Your task to perform on an android device: Add "macbook pro 15 inch" to the cart on bestbuy.com Image 0: 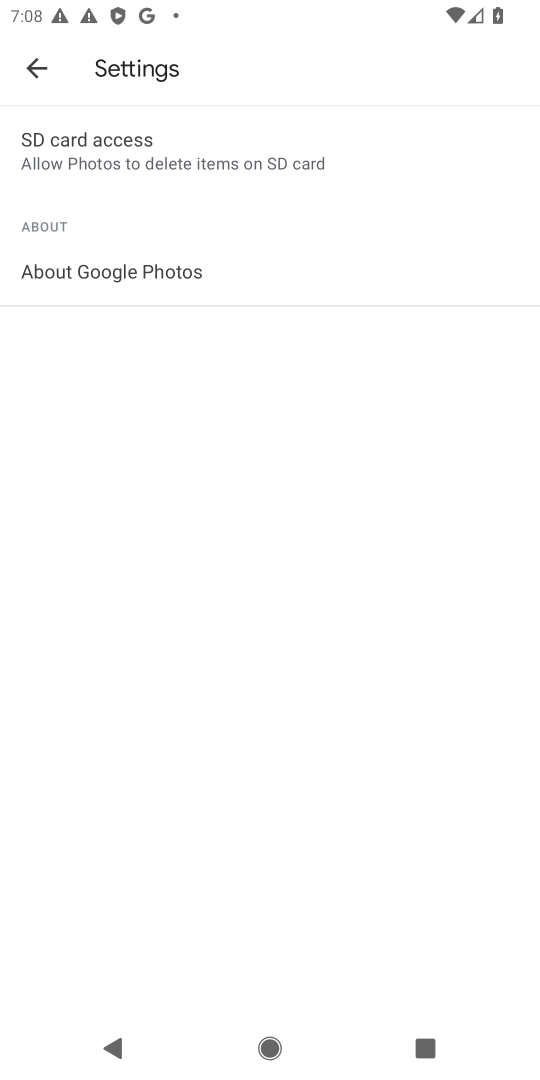
Step 0: press home button
Your task to perform on an android device: Add "macbook pro 15 inch" to the cart on bestbuy.com Image 1: 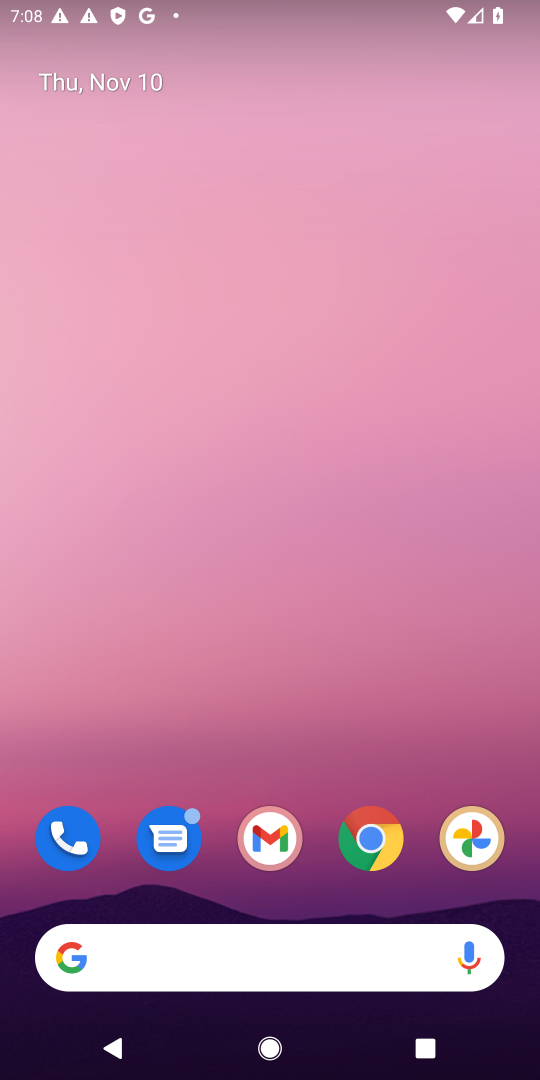
Step 1: drag from (295, 893) to (355, 5)
Your task to perform on an android device: Add "macbook pro 15 inch" to the cart on bestbuy.com Image 2: 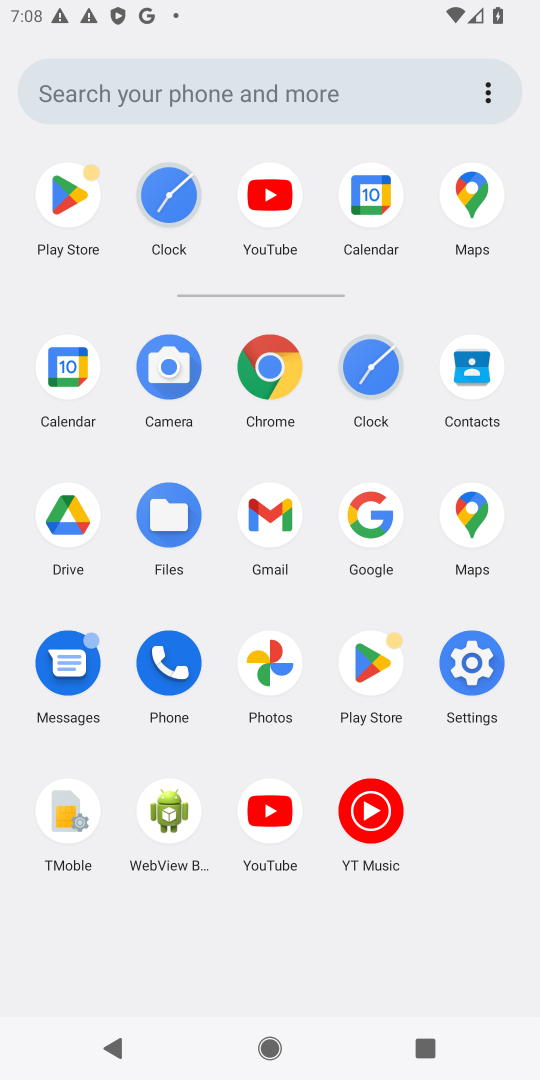
Step 2: click (264, 366)
Your task to perform on an android device: Add "macbook pro 15 inch" to the cart on bestbuy.com Image 3: 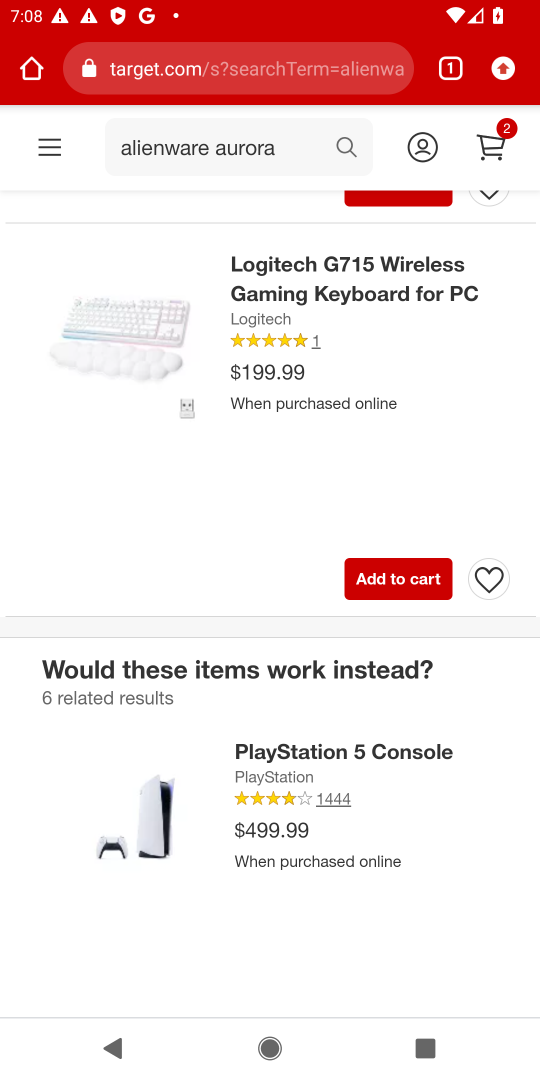
Step 3: click (234, 72)
Your task to perform on an android device: Add "macbook pro 15 inch" to the cart on bestbuy.com Image 4: 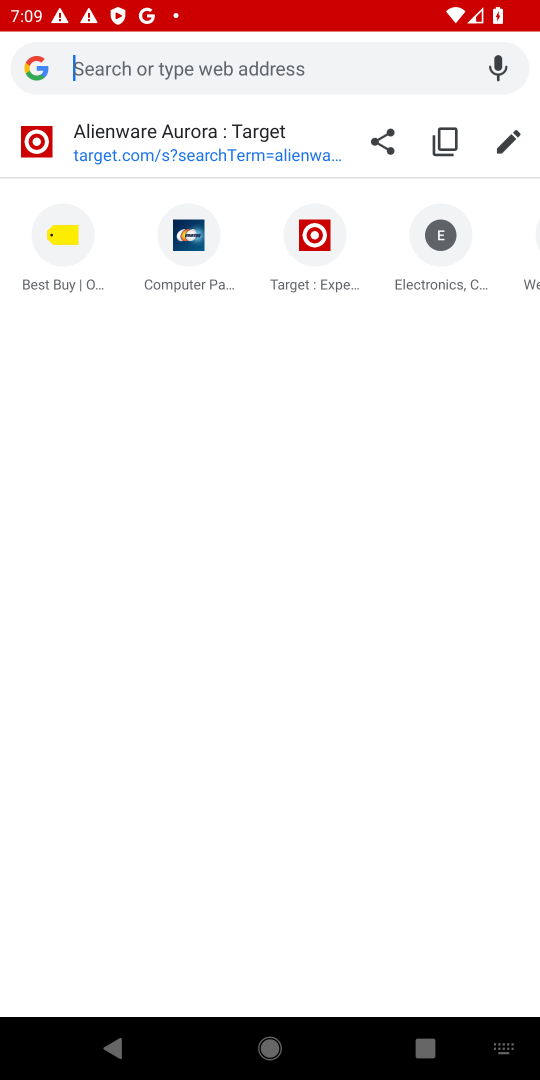
Step 4: type "bestbuy.com"
Your task to perform on an android device: Add "macbook pro 15 inch" to the cart on bestbuy.com Image 5: 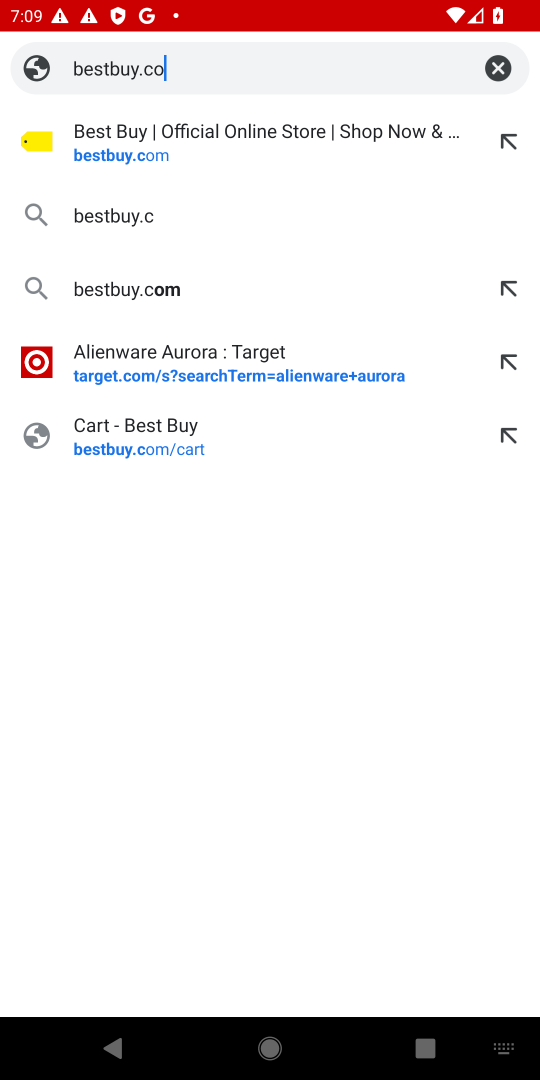
Step 5: press enter
Your task to perform on an android device: Add "macbook pro 15 inch" to the cart on bestbuy.com Image 6: 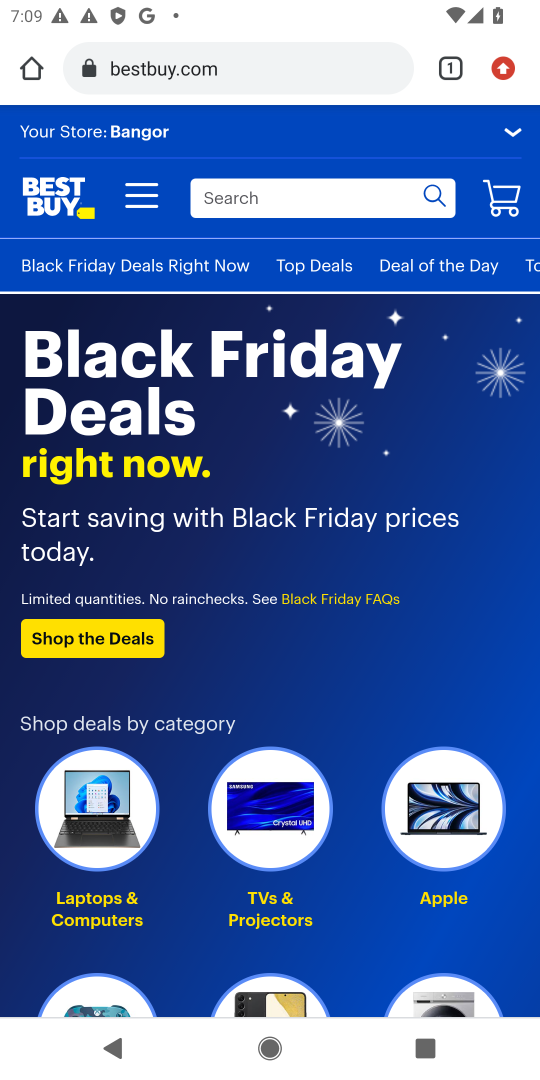
Step 6: click (298, 205)
Your task to perform on an android device: Add "macbook pro 15 inch" to the cart on bestbuy.com Image 7: 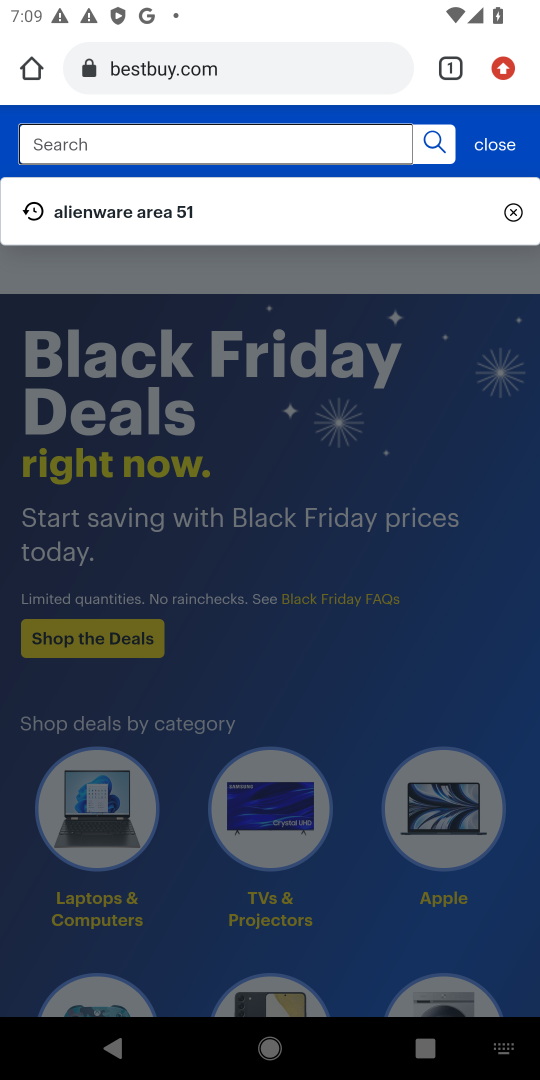
Step 7: type "macbook pro 15 inch"
Your task to perform on an android device: Add "macbook pro 15 inch" to the cart on bestbuy.com Image 8: 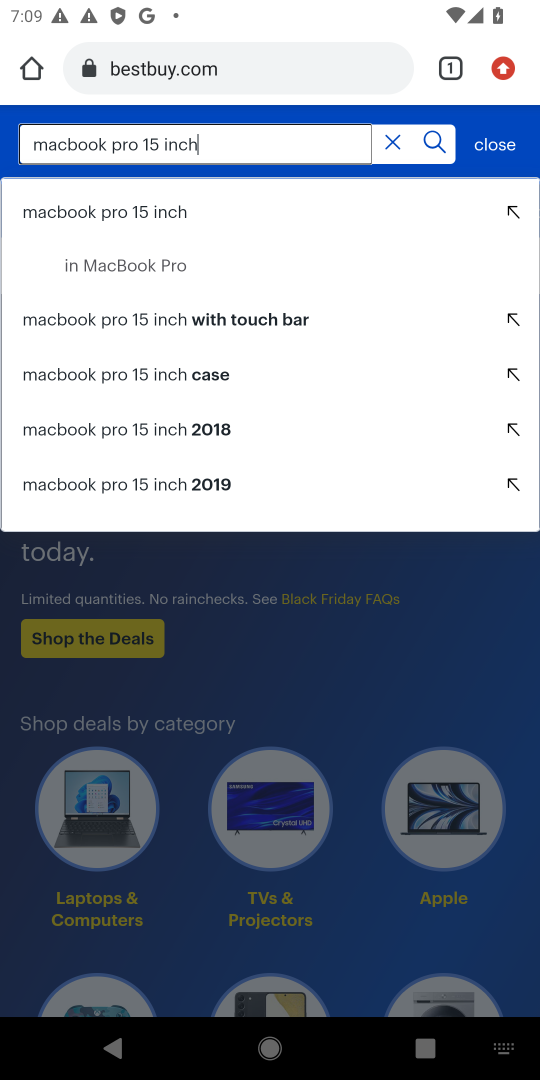
Step 8: press enter
Your task to perform on an android device: Add "macbook pro 15 inch" to the cart on bestbuy.com Image 9: 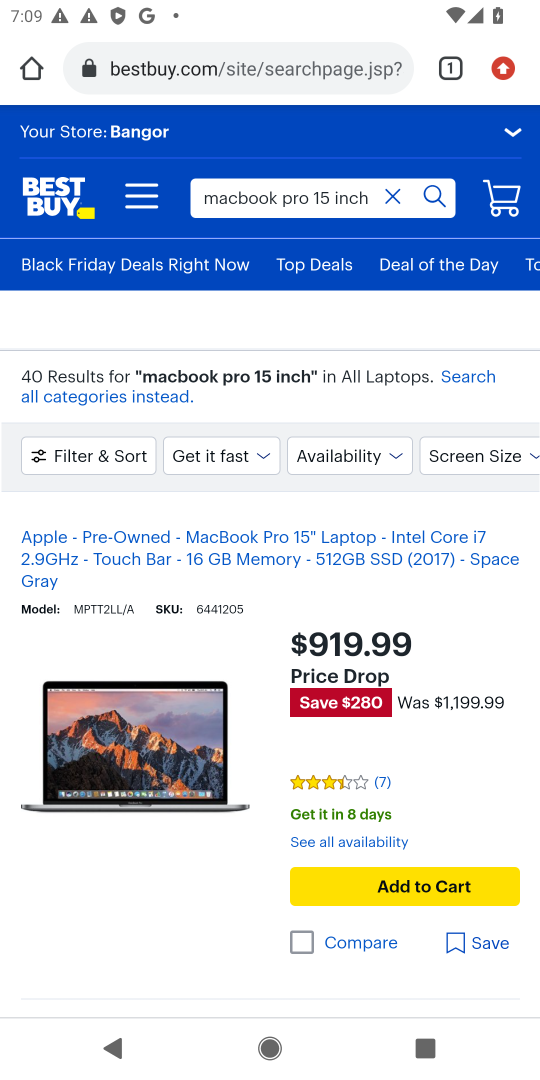
Step 9: click (428, 840)
Your task to perform on an android device: Add "macbook pro 15 inch" to the cart on bestbuy.com Image 10: 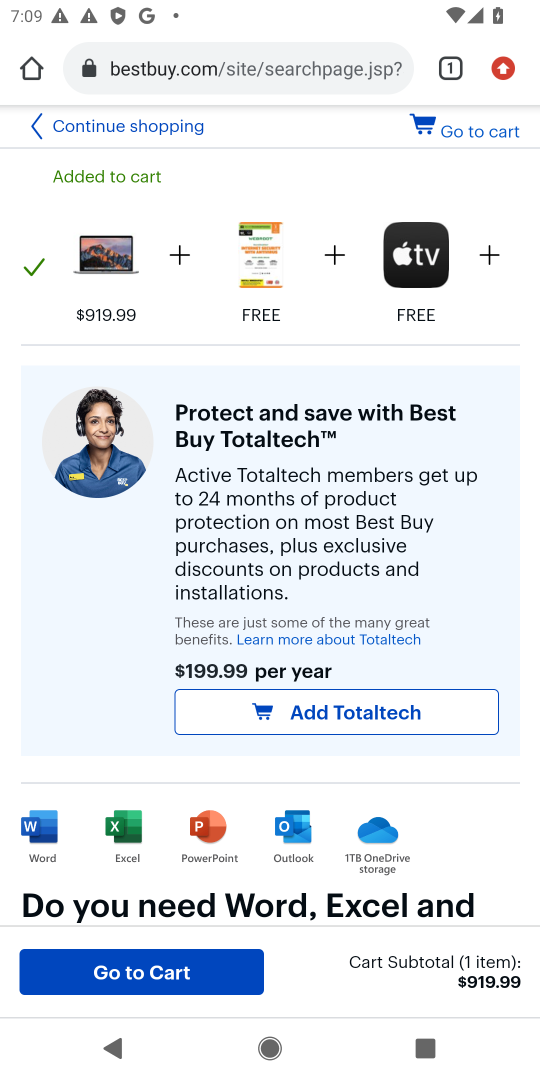
Step 10: task complete